Your task to perform on an android device: toggle airplane mode Image 0: 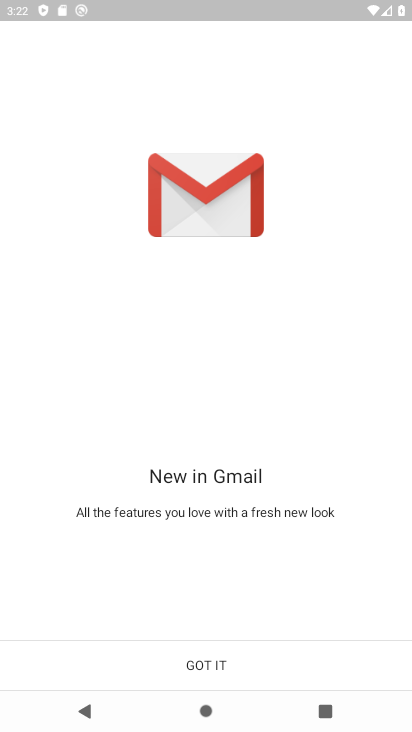
Step 0: press home button
Your task to perform on an android device: toggle airplane mode Image 1: 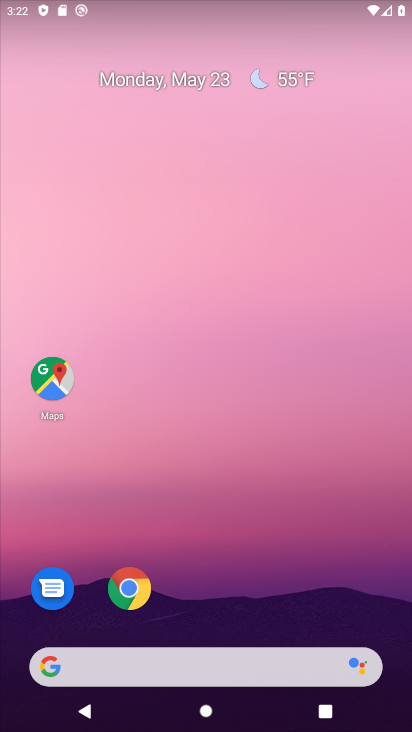
Step 1: drag from (240, 601) to (262, 57)
Your task to perform on an android device: toggle airplane mode Image 2: 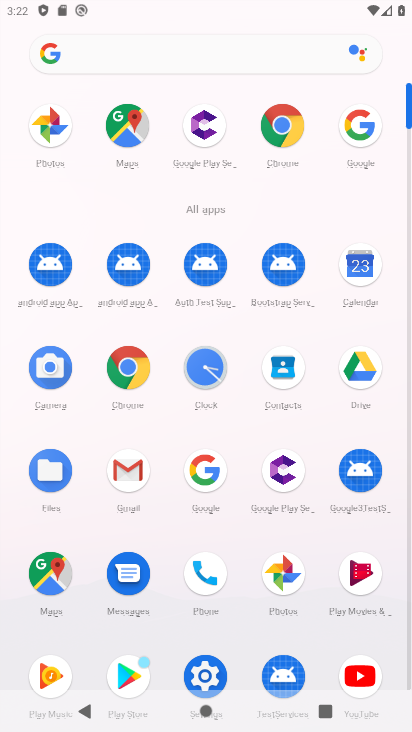
Step 2: click (202, 676)
Your task to perform on an android device: toggle airplane mode Image 3: 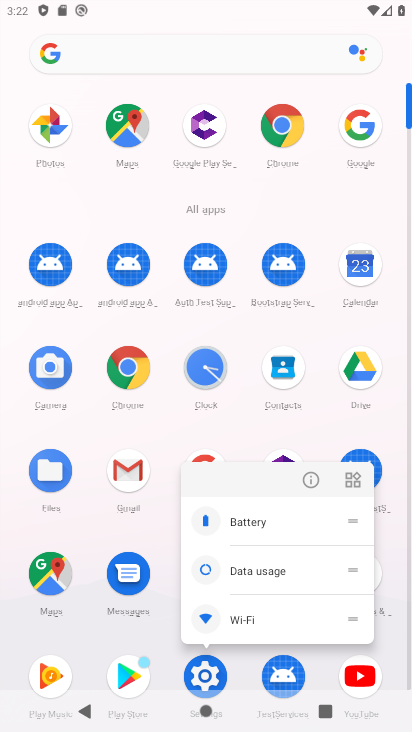
Step 3: click (202, 676)
Your task to perform on an android device: toggle airplane mode Image 4: 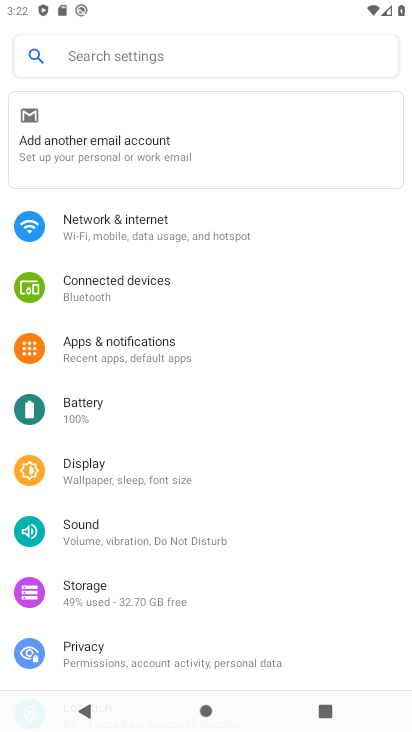
Step 4: click (134, 226)
Your task to perform on an android device: toggle airplane mode Image 5: 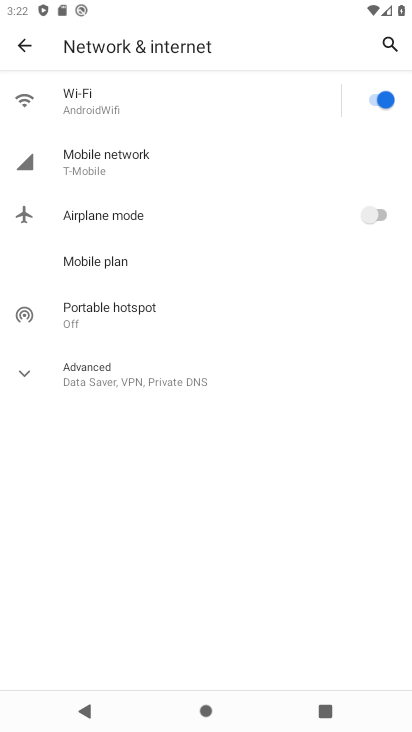
Step 5: click (371, 215)
Your task to perform on an android device: toggle airplane mode Image 6: 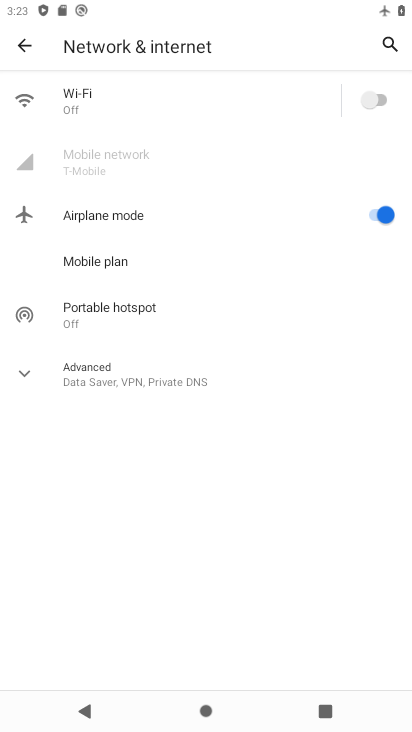
Step 6: task complete